Your task to perform on an android device: Open calendar and show me the second week of next month Image 0: 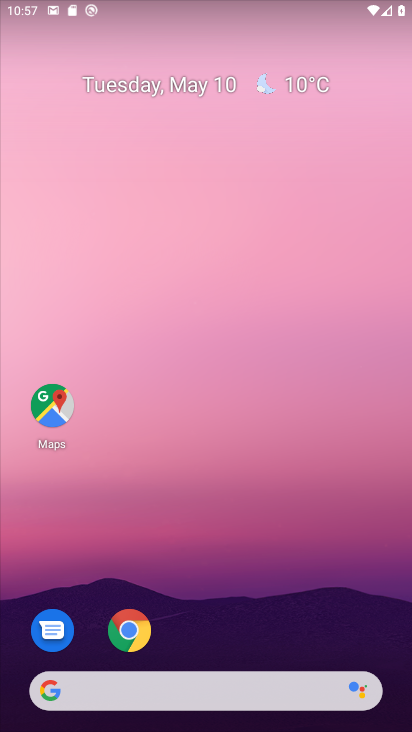
Step 0: drag from (178, 580) to (181, 157)
Your task to perform on an android device: Open calendar and show me the second week of next month Image 1: 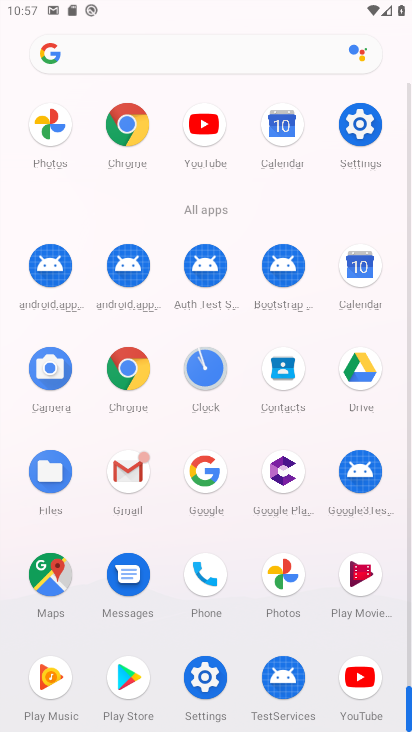
Step 1: click (275, 120)
Your task to perform on an android device: Open calendar and show me the second week of next month Image 2: 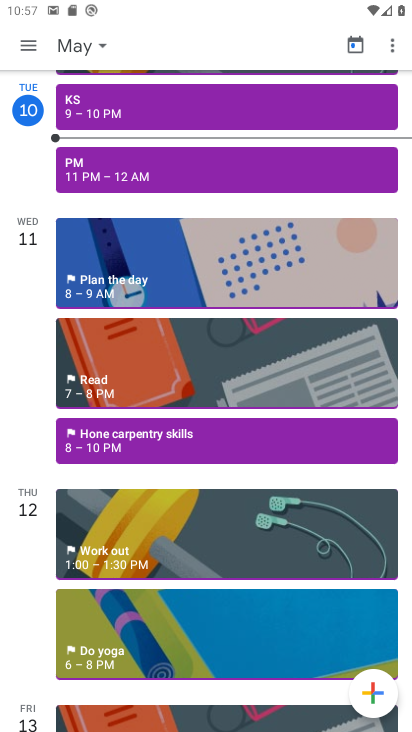
Step 2: click (25, 43)
Your task to perform on an android device: Open calendar and show me the second week of next month Image 3: 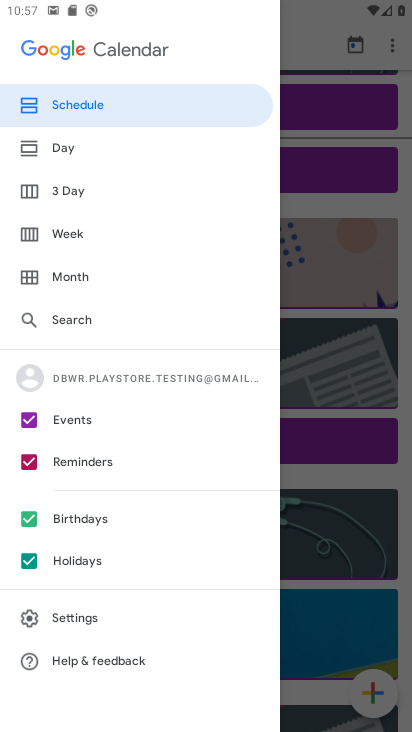
Step 3: click (77, 232)
Your task to perform on an android device: Open calendar and show me the second week of next month Image 4: 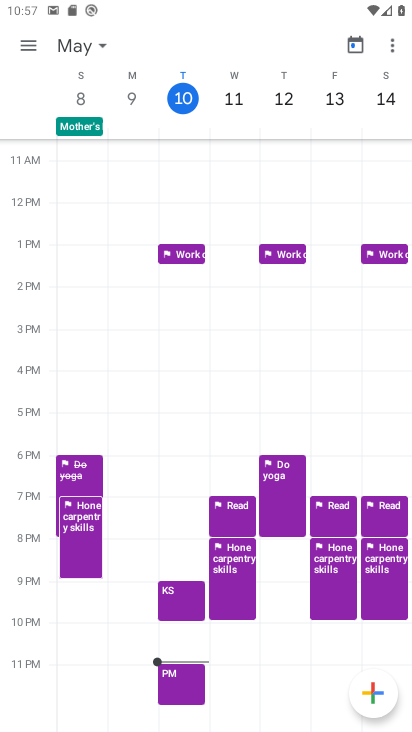
Step 4: click (91, 49)
Your task to perform on an android device: Open calendar and show me the second week of next month Image 5: 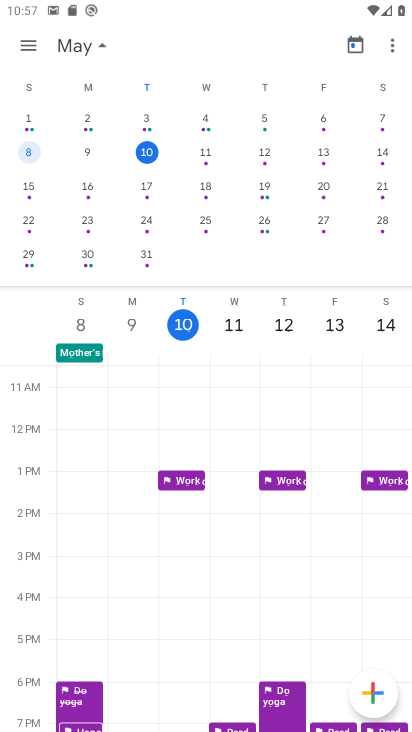
Step 5: drag from (377, 208) to (5, 141)
Your task to perform on an android device: Open calendar and show me the second week of next month Image 6: 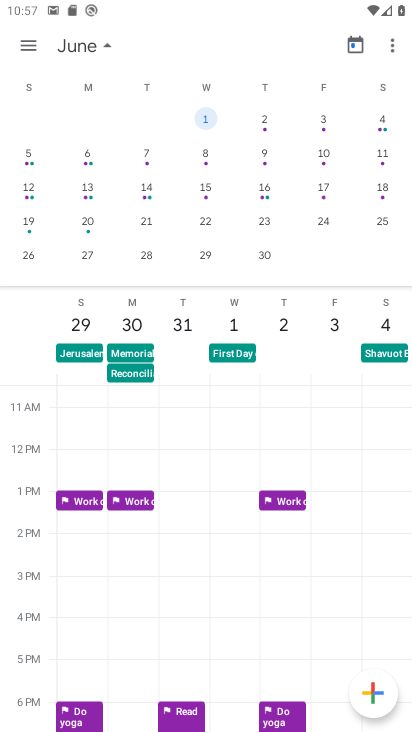
Step 6: click (86, 154)
Your task to perform on an android device: Open calendar and show me the second week of next month Image 7: 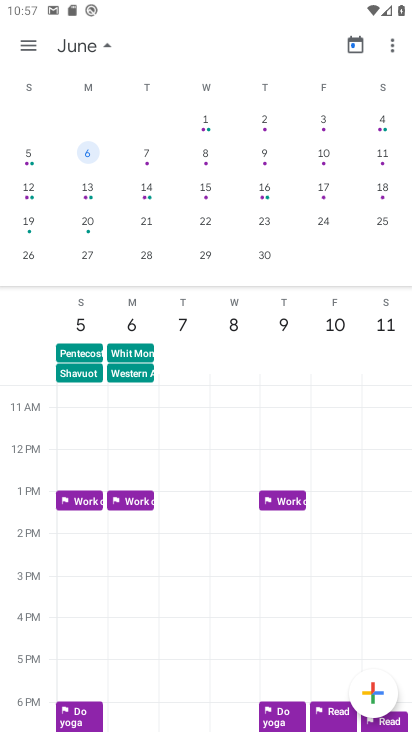
Step 7: drag from (254, 398) to (246, 127)
Your task to perform on an android device: Open calendar and show me the second week of next month Image 8: 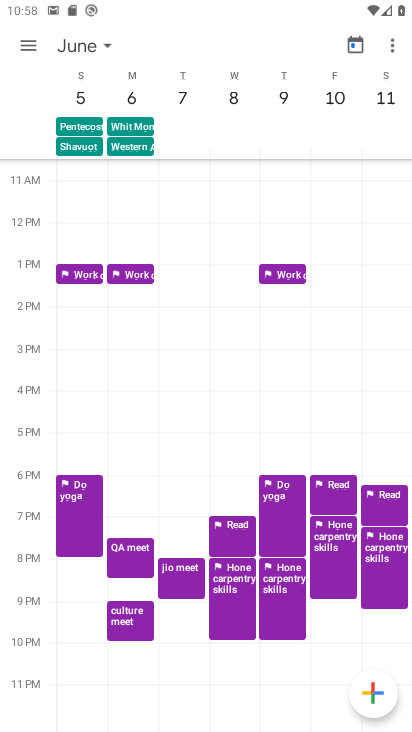
Step 8: click (103, 45)
Your task to perform on an android device: Open calendar and show me the second week of next month Image 9: 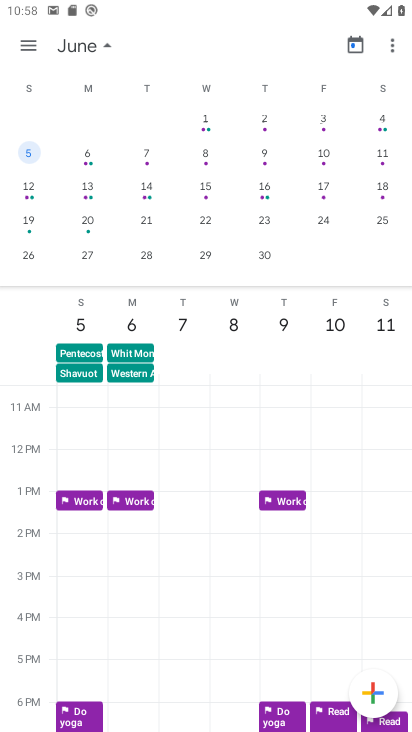
Step 9: click (83, 152)
Your task to perform on an android device: Open calendar and show me the second week of next month Image 10: 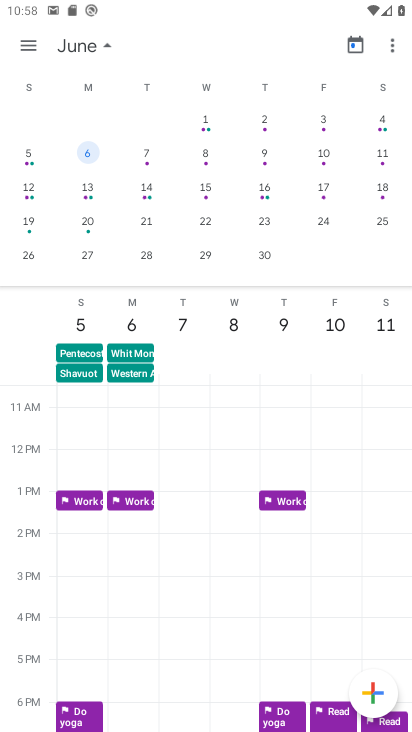
Step 10: task complete